Your task to perform on an android device: Open notification settings Image 0: 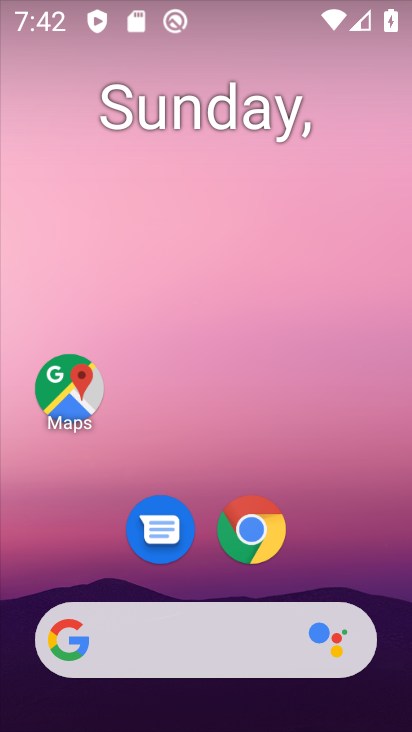
Step 0: drag from (367, 465) to (273, 33)
Your task to perform on an android device: Open notification settings Image 1: 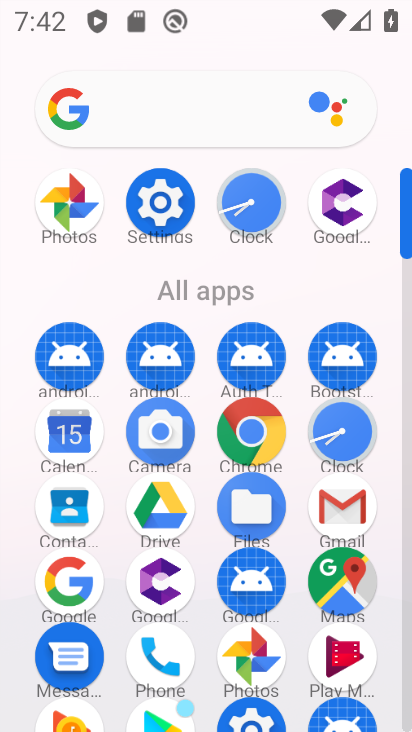
Step 1: click (175, 204)
Your task to perform on an android device: Open notification settings Image 2: 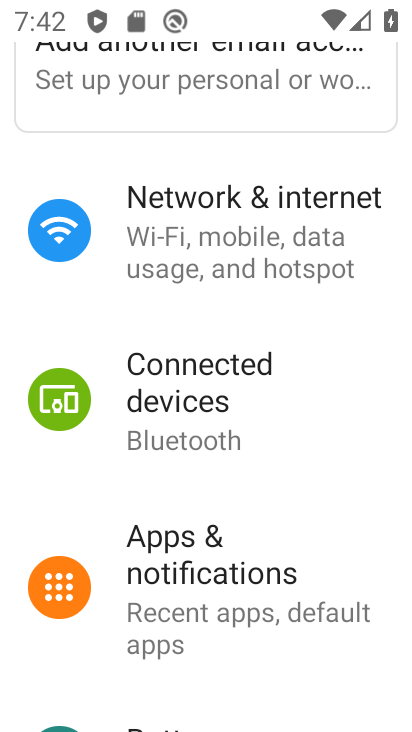
Step 2: click (278, 598)
Your task to perform on an android device: Open notification settings Image 3: 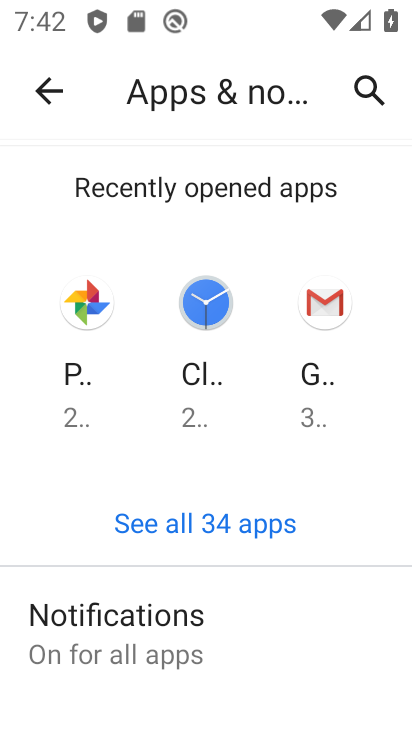
Step 3: click (160, 607)
Your task to perform on an android device: Open notification settings Image 4: 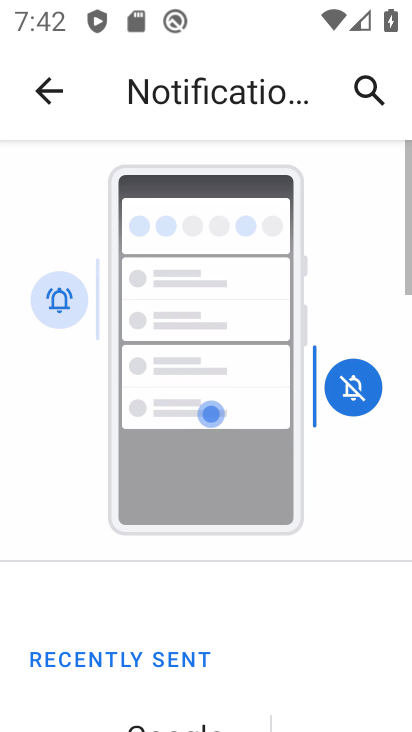
Step 4: task complete